Your task to perform on an android device: What's the weather? Image 0: 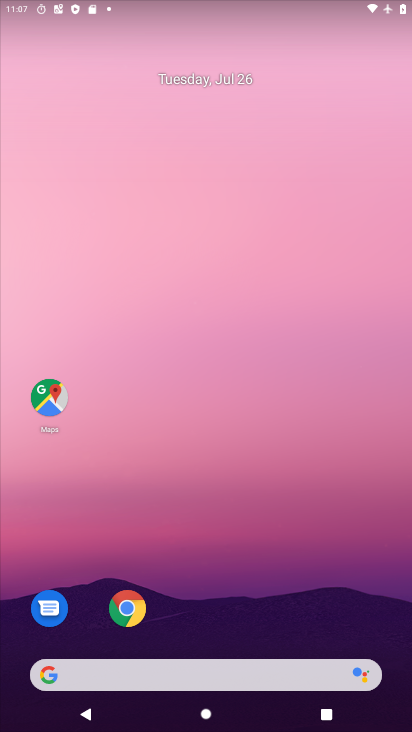
Step 0: drag from (225, 618) to (243, 159)
Your task to perform on an android device: What's the weather? Image 1: 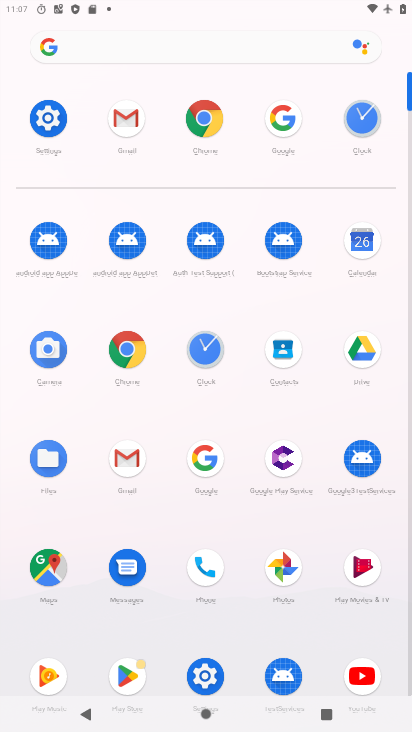
Step 1: click (277, 125)
Your task to perform on an android device: What's the weather? Image 2: 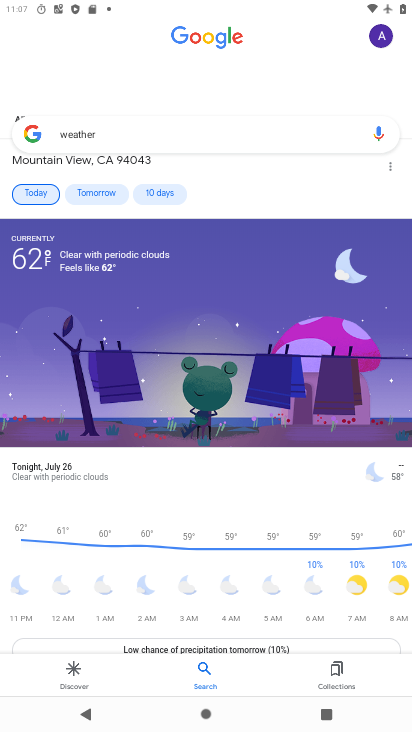
Step 2: click (151, 128)
Your task to perform on an android device: What's the weather? Image 3: 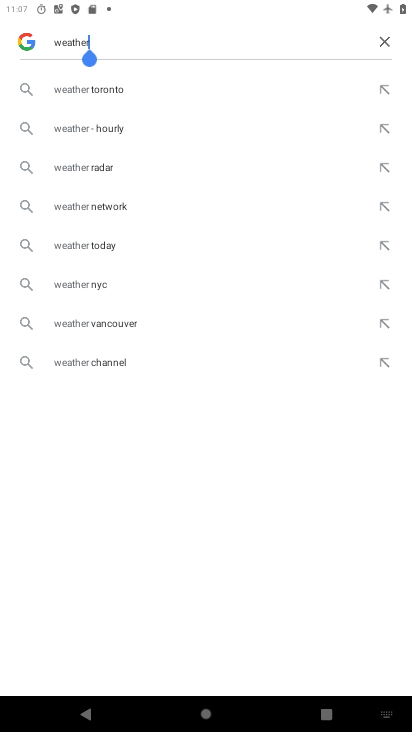
Step 3: task complete